Your task to perform on an android device: turn off data saver in the chrome app Image 0: 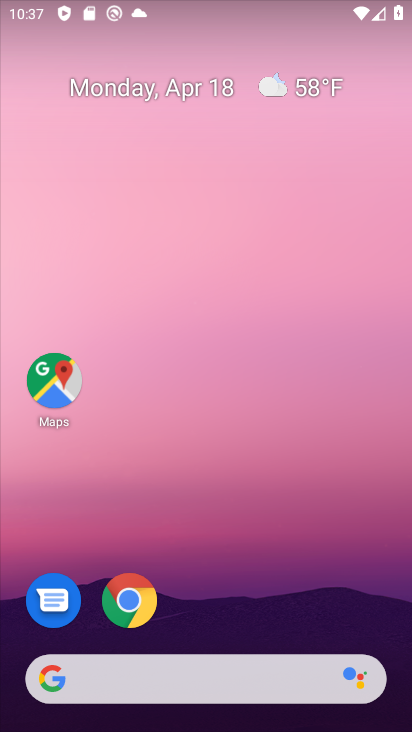
Step 0: click (134, 603)
Your task to perform on an android device: turn off data saver in the chrome app Image 1: 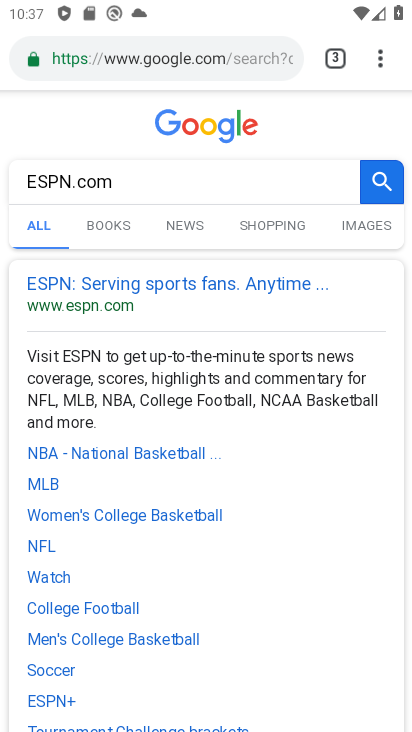
Step 1: click (376, 56)
Your task to perform on an android device: turn off data saver in the chrome app Image 2: 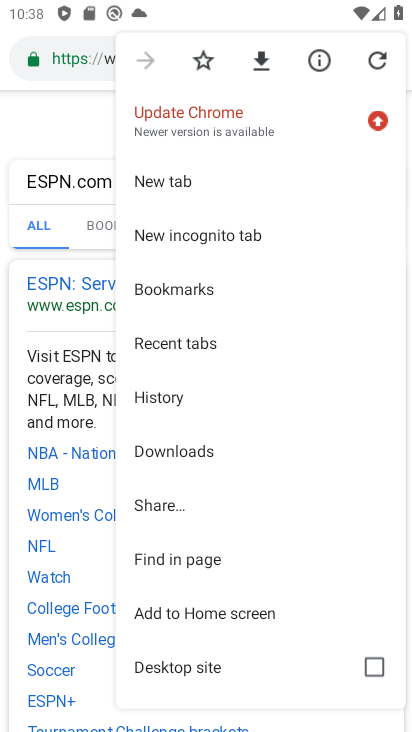
Step 2: drag from (269, 524) to (259, 182)
Your task to perform on an android device: turn off data saver in the chrome app Image 3: 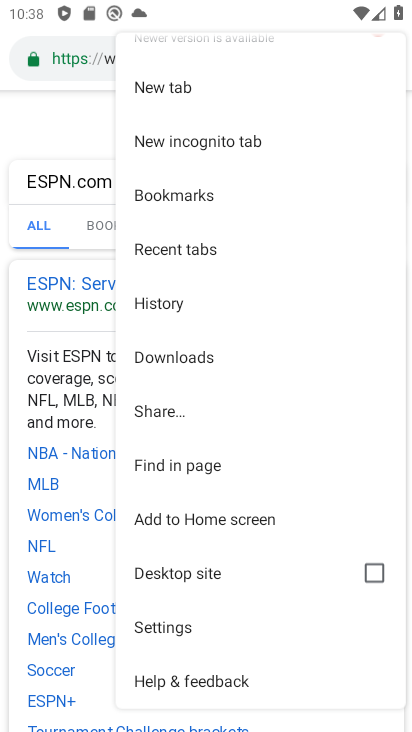
Step 3: click (172, 622)
Your task to perform on an android device: turn off data saver in the chrome app Image 4: 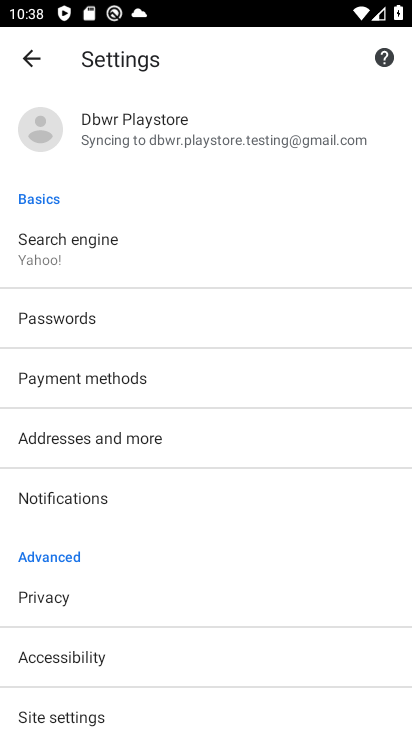
Step 4: drag from (208, 536) to (189, 66)
Your task to perform on an android device: turn off data saver in the chrome app Image 5: 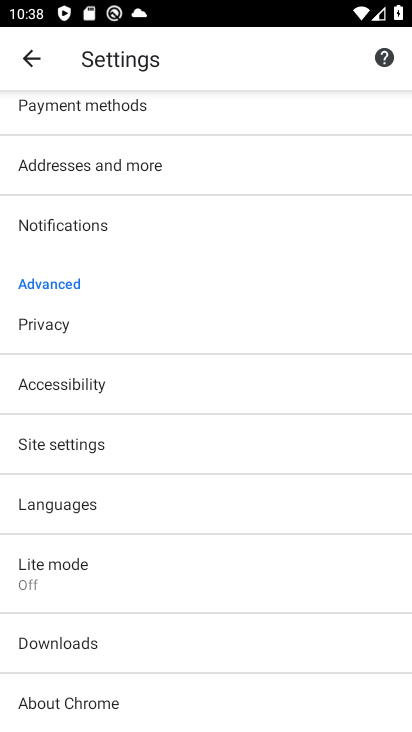
Step 5: click (67, 563)
Your task to perform on an android device: turn off data saver in the chrome app Image 6: 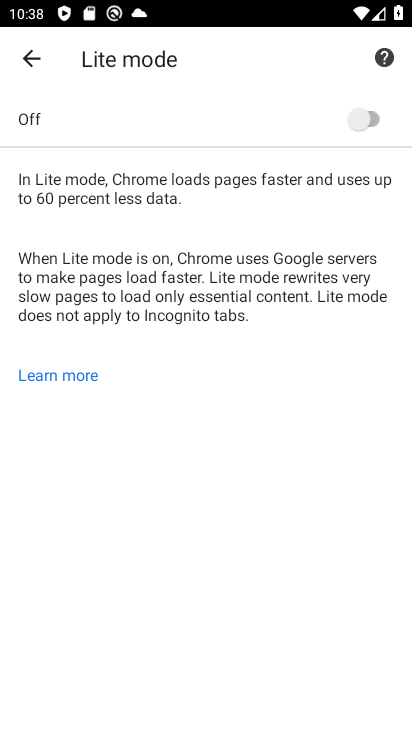
Step 6: task complete